Your task to perform on an android device: Open Android settings Image 0: 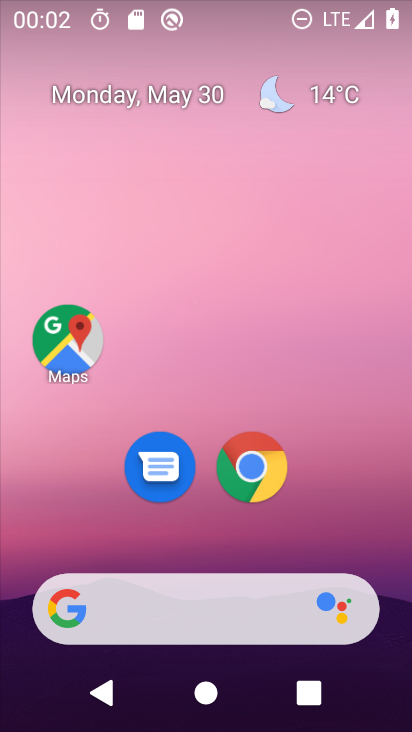
Step 0: drag from (190, 536) to (183, 180)
Your task to perform on an android device: Open Android settings Image 1: 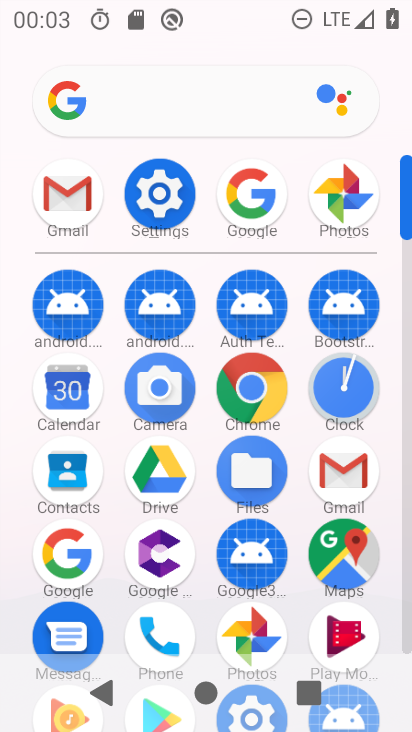
Step 1: click (178, 195)
Your task to perform on an android device: Open Android settings Image 2: 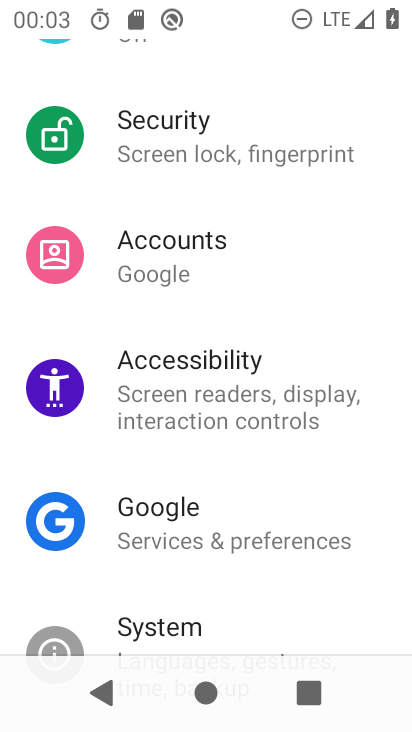
Step 2: drag from (187, 538) to (133, 197)
Your task to perform on an android device: Open Android settings Image 3: 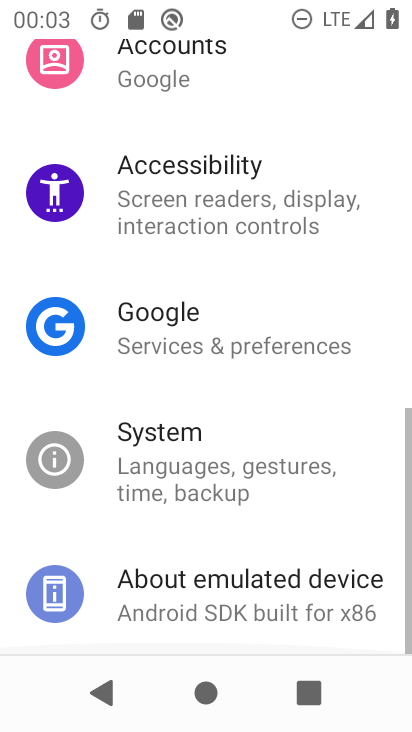
Step 3: click (212, 237)
Your task to perform on an android device: Open Android settings Image 4: 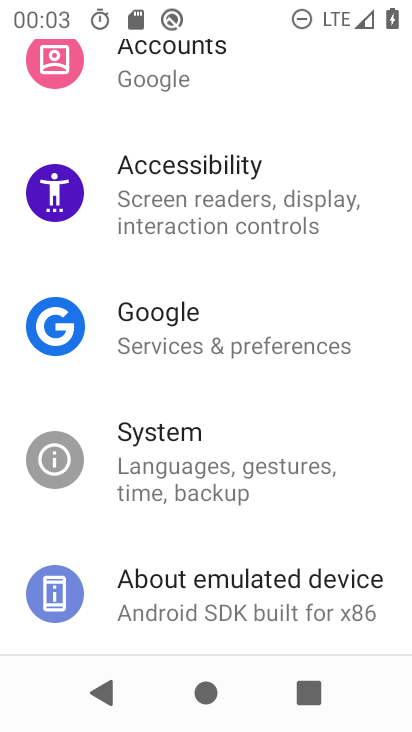
Step 4: task complete